Your task to perform on an android device: Open the calendar and show me this week's events? Image 0: 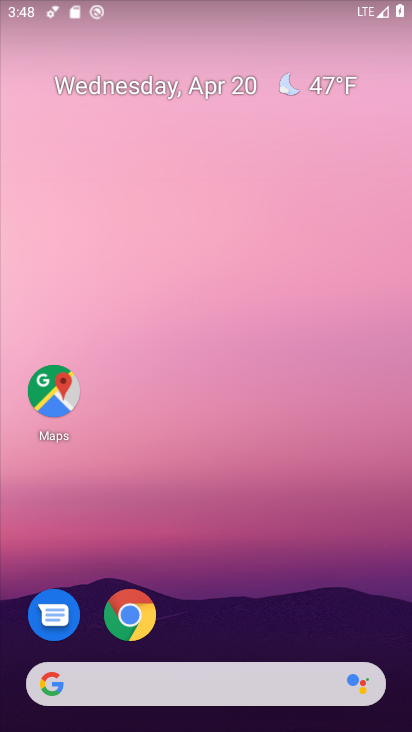
Step 0: drag from (203, 642) to (217, 279)
Your task to perform on an android device: Open the calendar and show me this week's events? Image 1: 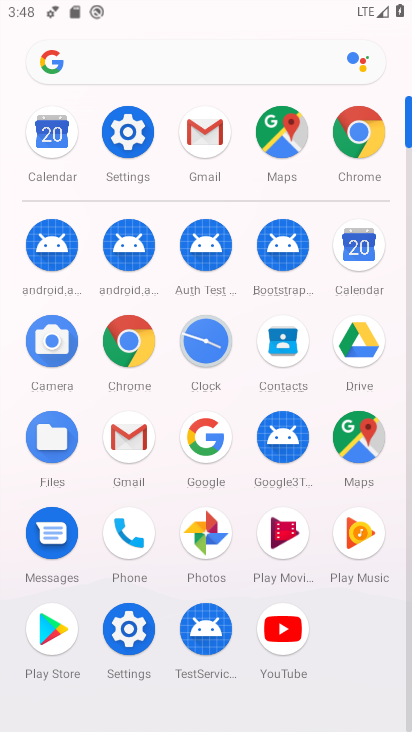
Step 1: click (356, 256)
Your task to perform on an android device: Open the calendar and show me this week's events? Image 2: 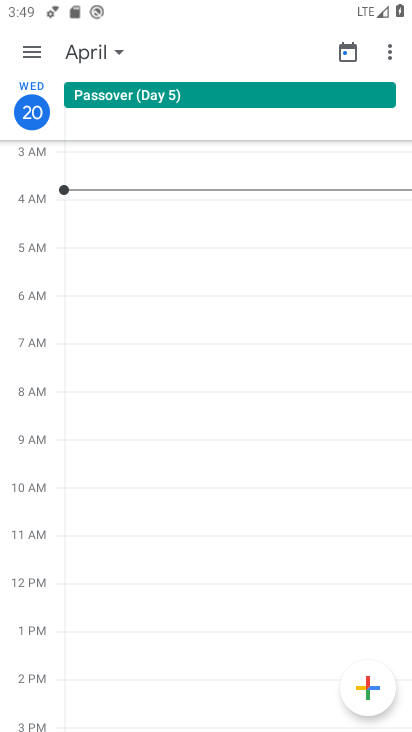
Step 2: click (112, 54)
Your task to perform on an android device: Open the calendar and show me this week's events? Image 3: 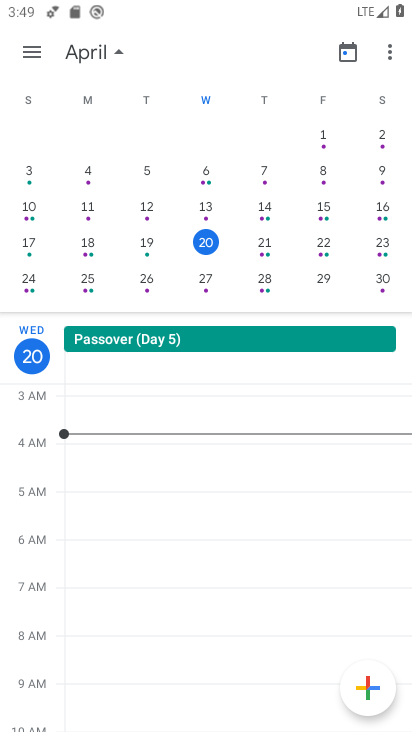
Step 3: click (273, 247)
Your task to perform on an android device: Open the calendar and show me this week's events? Image 4: 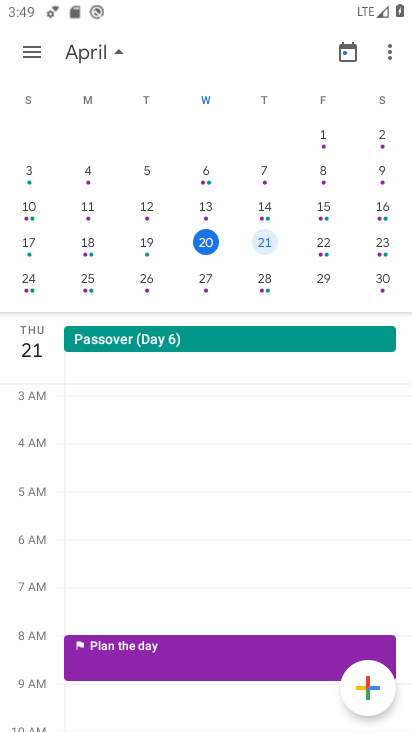
Step 4: click (316, 239)
Your task to perform on an android device: Open the calendar and show me this week's events? Image 5: 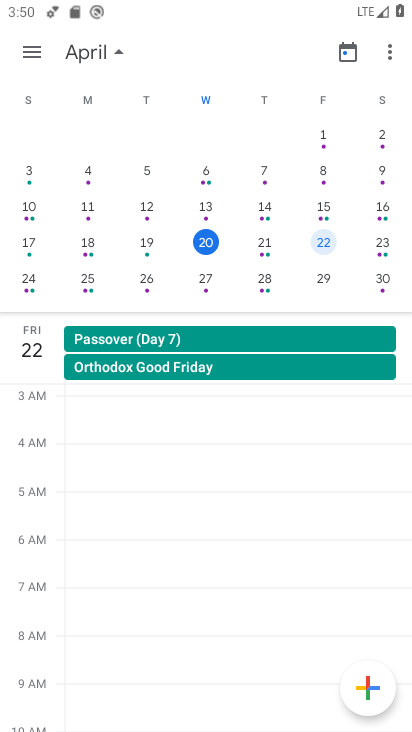
Step 5: task complete